Your task to perform on an android device: make emails show in primary in the gmail app Image 0: 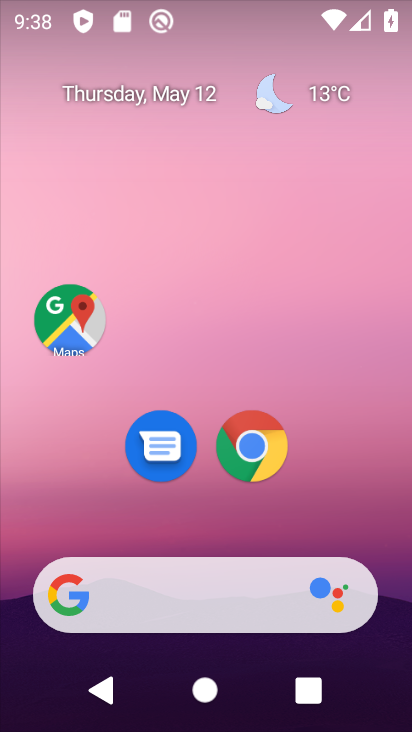
Step 0: drag from (258, 510) to (301, 97)
Your task to perform on an android device: make emails show in primary in the gmail app Image 1: 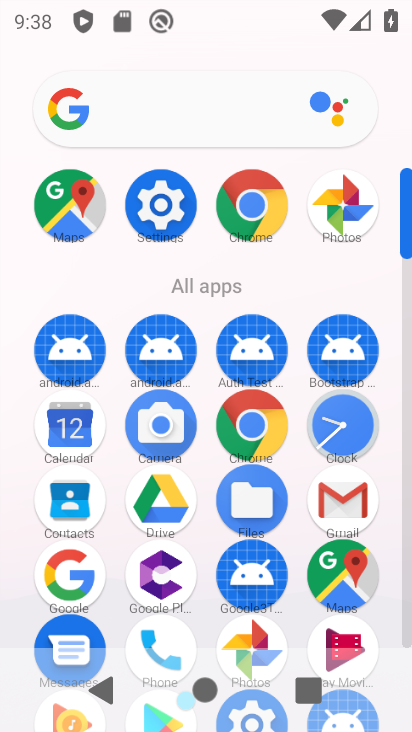
Step 1: click (351, 507)
Your task to perform on an android device: make emails show in primary in the gmail app Image 2: 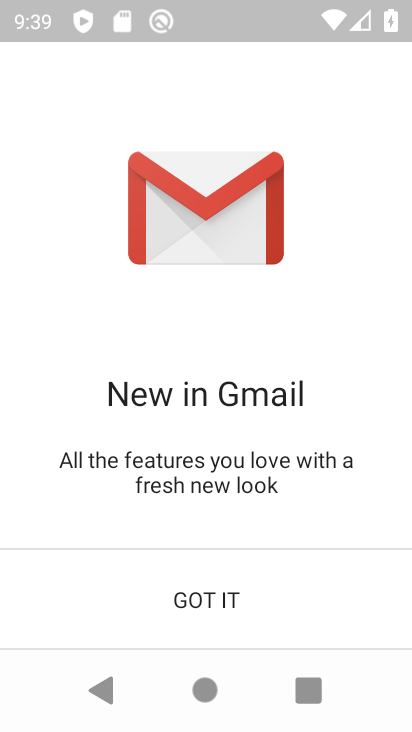
Step 2: click (328, 602)
Your task to perform on an android device: make emails show in primary in the gmail app Image 3: 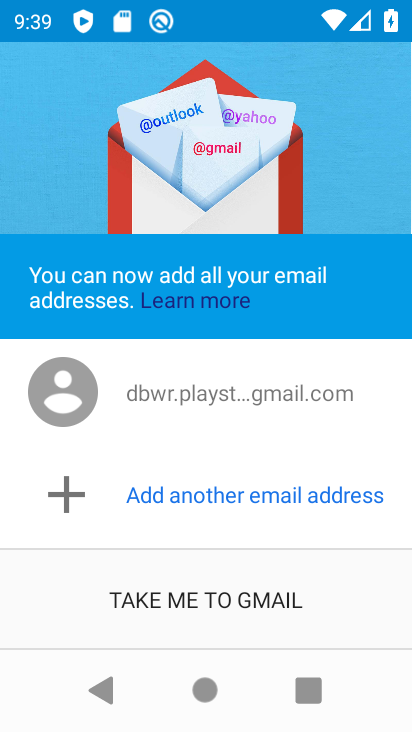
Step 3: click (342, 605)
Your task to perform on an android device: make emails show in primary in the gmail app Image 4: 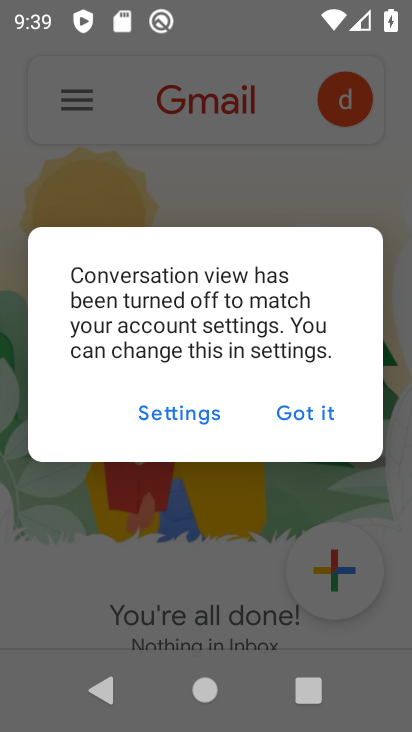
Step 4: click (287, 419)
Your task to perform on an android device: make emails show in primary in the gmail app Image 5: 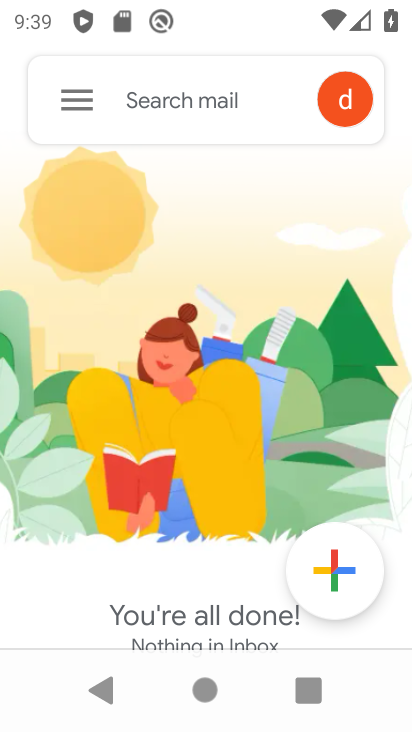
Step 5: click (72, 94)
Your task to perform on an android device: make emails show in primary in the gmail app Image 6: 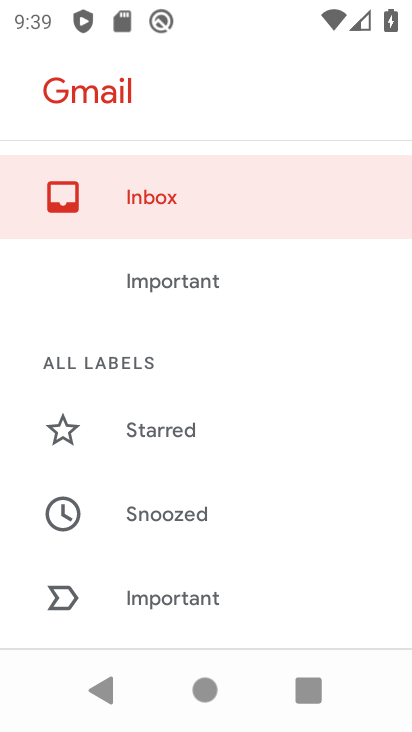
Step 6: drag from (216, 586) to (283, 232)
Your task to perform on an android device: make emails show in primary in the gmail app Image 7: 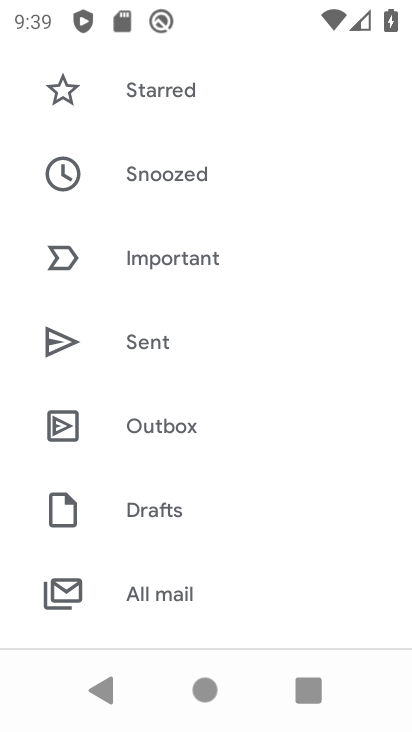
Step 7: drag from (270, 607) to (306, 307)
Your task to perform on an android device: make emails show in primary in the gmail app Image 8: 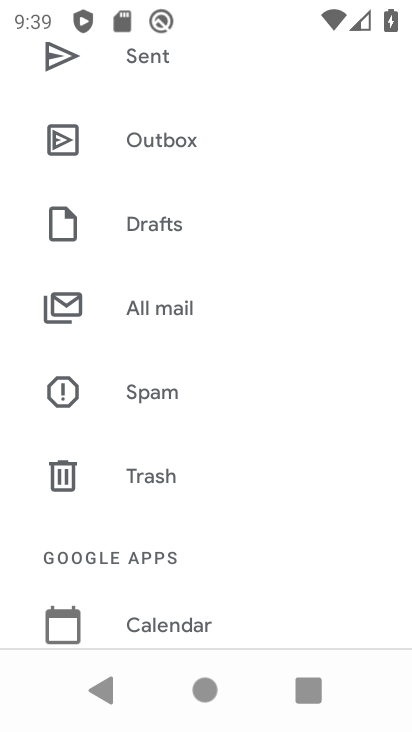
Step 8: drag from (229, 636) to (268, 425)
Your task to perform on an android device: make emails show in primary in the gmail app Image 9: 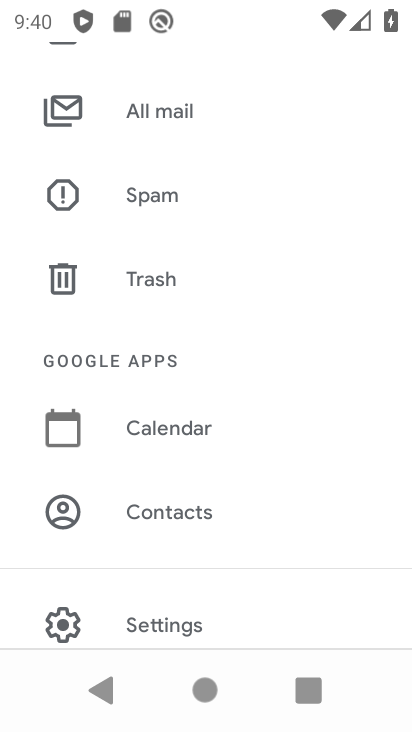
Step 9: click (169, 621)
Your task to perform on an android device: make emails show in primary in the gmail app Image 10: 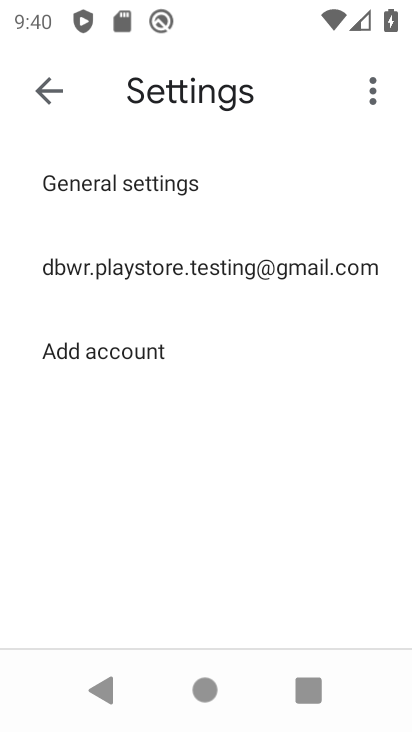
Step 10: click (225, 272)
Your task to perform on an android device: make emails show in primary in the gmail app Image 11: 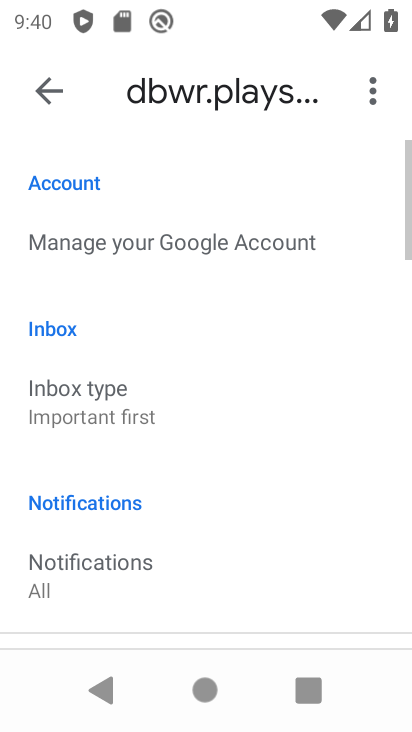
Step 11: click (135, 417)
Your task to perform on an android device: make emails show in primary in the gmail app Image 12: 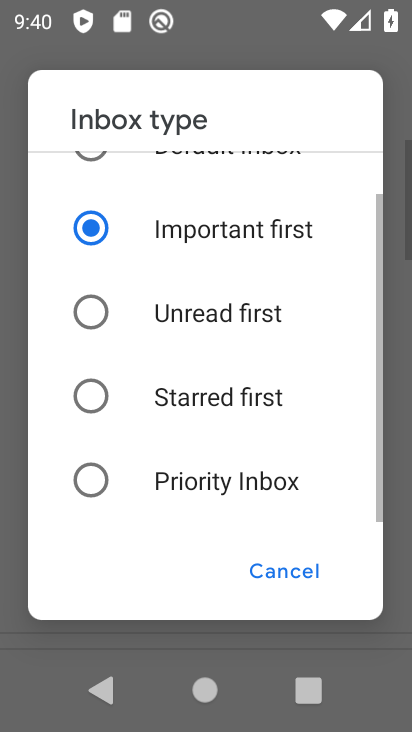
Step 12: drag from (153, 235) to (171, 543)
Your task to perform on an android device: make emails show in primary in the gmail app Image 13: 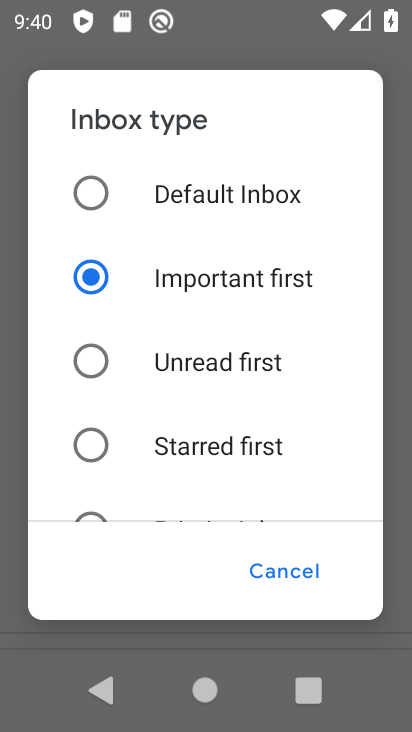
Step 13: click (84, 192)
Your task to perform on an android device: make emails show in primary in the gmail app Image 14: 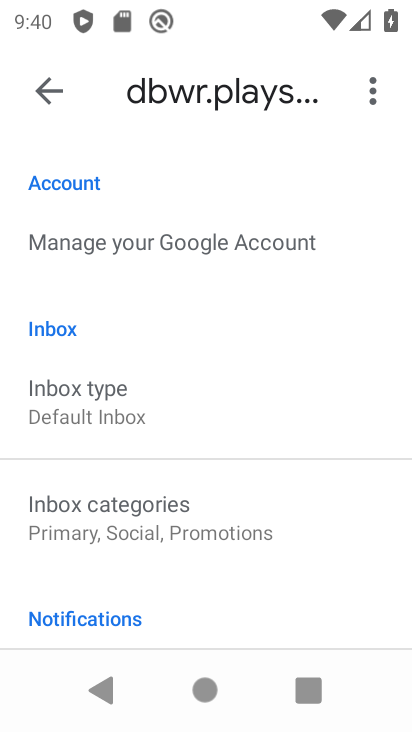
Step 14: task complete